Your task to perform on an android device: clear history in the chrome app Image 0: 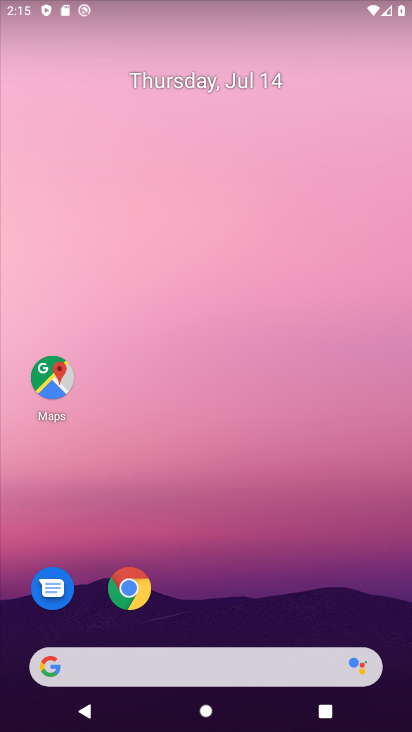
Step 0: drag from (246, 528) to (195, 98)
Your task to perform on an android device: clear history in the chrome app Image 1: 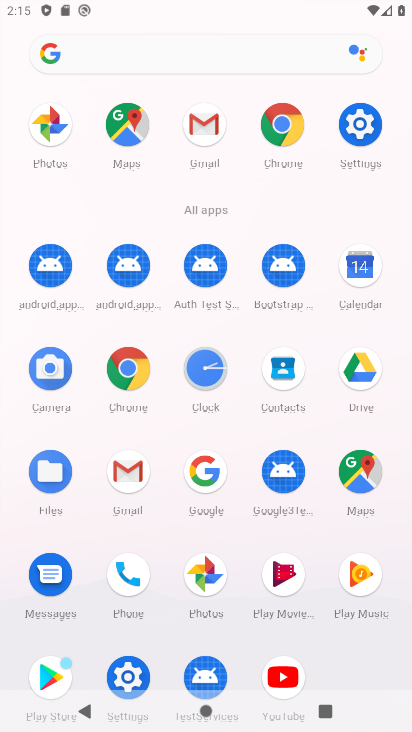
Step 1: click (290, 130)
Your task to perform on an android device: clear history in the chrome app Image 2: 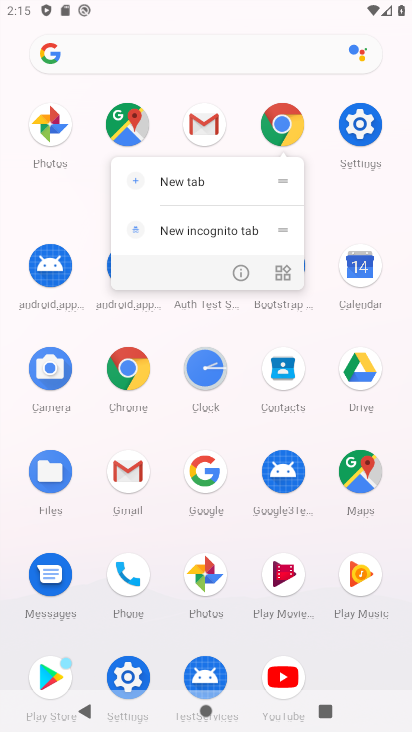
Step 2: click (290, 129)
Your task to perform on an android device: clear history in the chrome app Image 3: 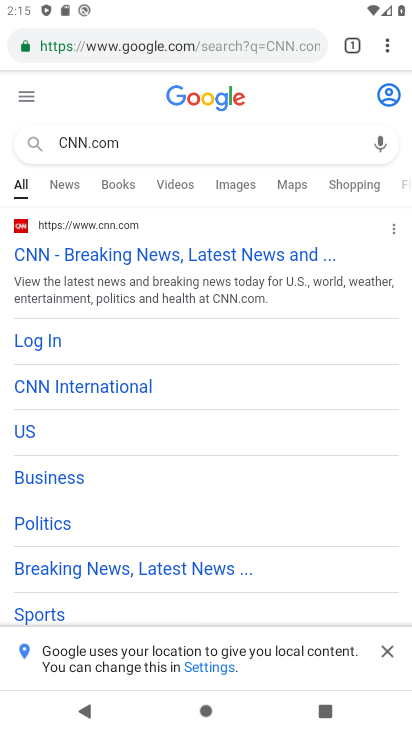
Step 3: drag from (386, 50) to (213, 261)
Your task to perform on an android device: clear history in the chrome app Image 4: 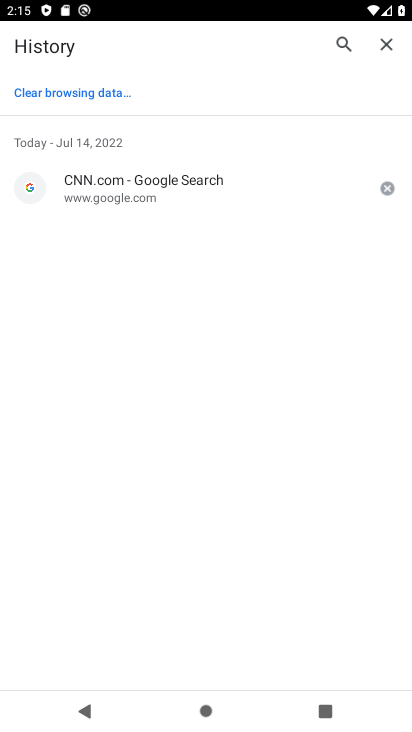
Step 4: click (58, 90)
Your task to perform on an android device: clear history in the chrome app Image 5: 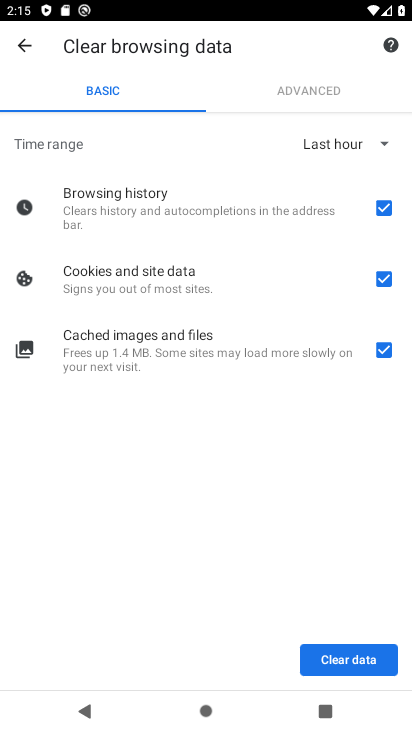
Step 5: click (360, 662)
Your task to perform on an android device: clear history in the chrome app Image 6: 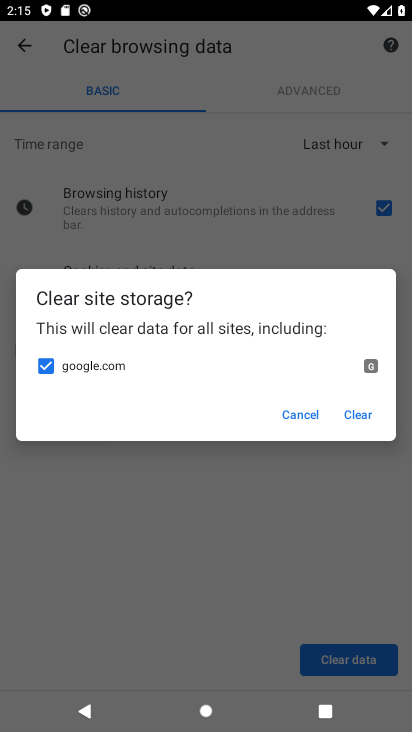
Step 6: click (358, 412)
Your task to perform on an android device: clear history in the chrome app Image 7: 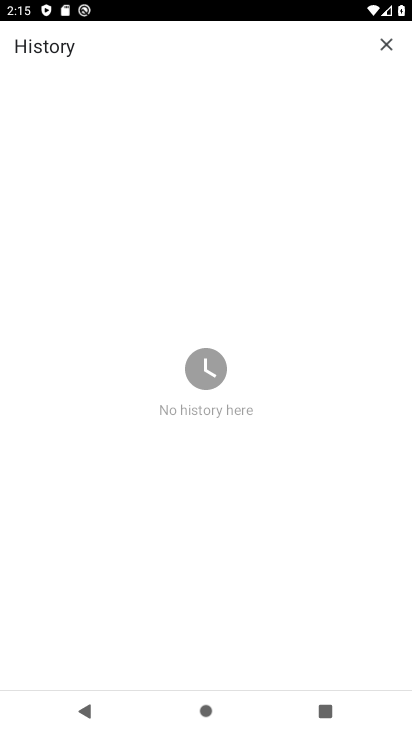
Step 7: task complete